Your task to perform on an android device: Open calendar and show me the second week of next month Image 0: 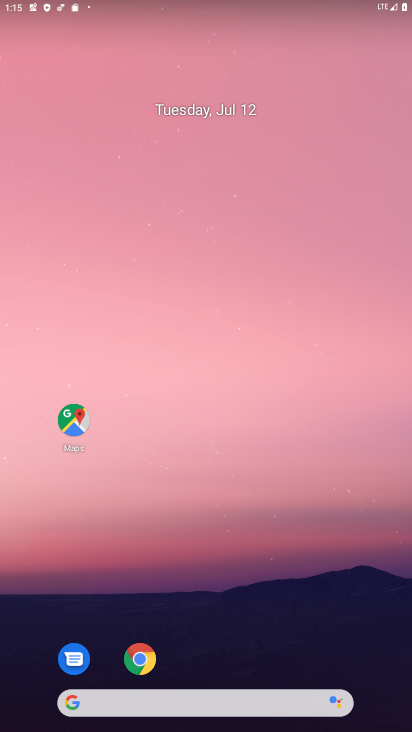
Step 0: drag from (211, 718) to (201, 223)
Your task to perform on an android device: Open calendar and show me the second week of next month Image 1: 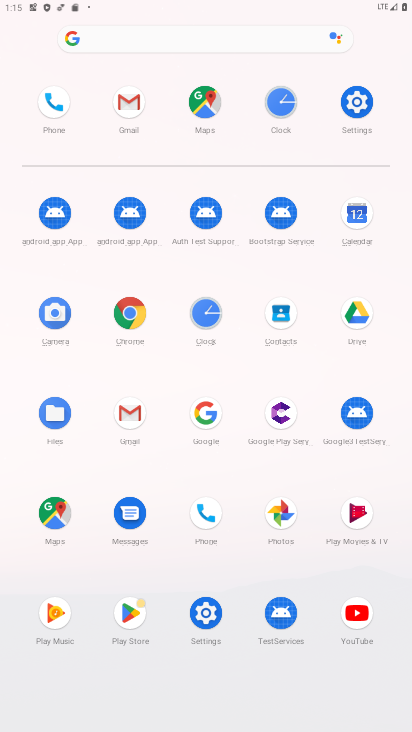
Step 1: click (356, 215)
Your task to perform on an android device: Open calendar and show me the second week of next month Image 2: 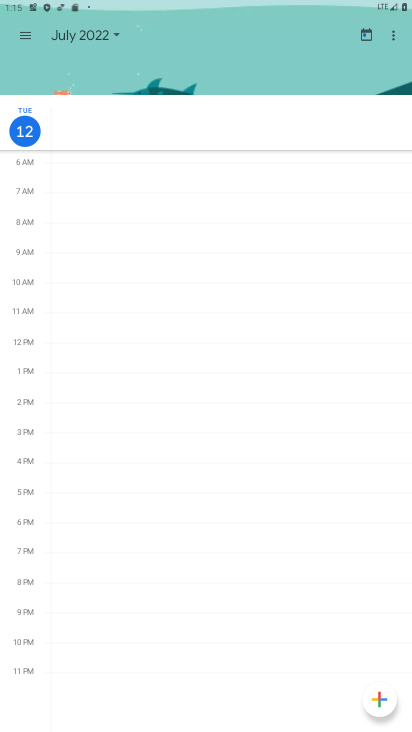
Step 2: click (117, 33)
Your task to perform on an android device: Open calendar and show me the second week of next month Image 3: 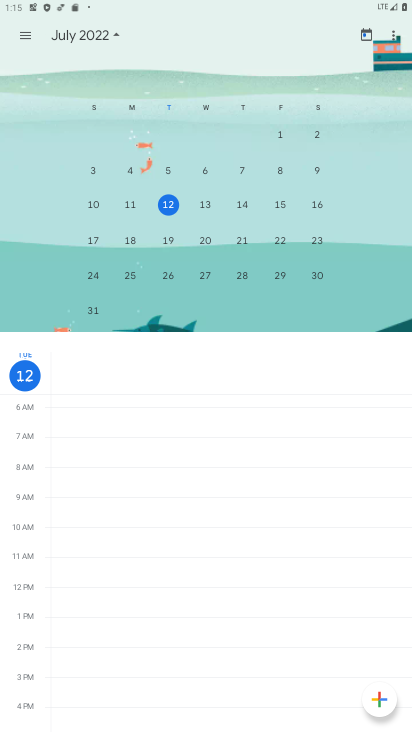
Step 3: drag from (305, 227) to (98, 227)
Your task to perform on an android device: Open calendar and show me the second week of next month Image 4: 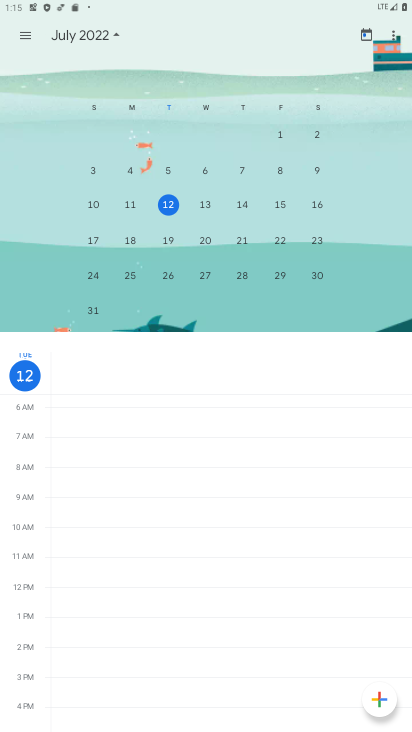
Step 4: drag from (328, 239) to (14, 218)
Your task to perform on an android device: Open calendar and show me the second week of next month Image 5: 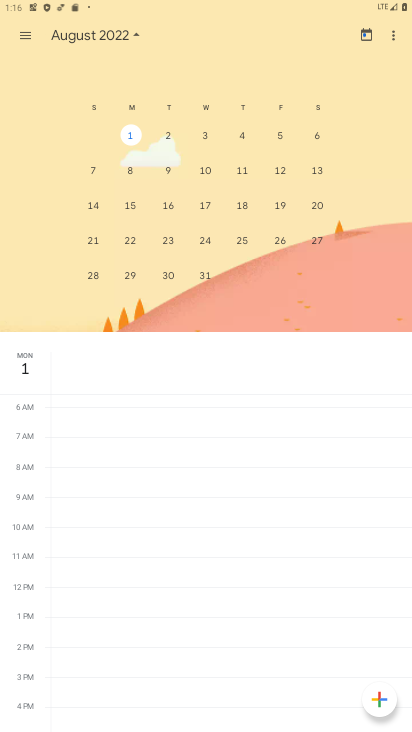
Step 5: click (128, 168)
Your task to perform on an android device: Open calendar and show me the second week of next month Image 6: 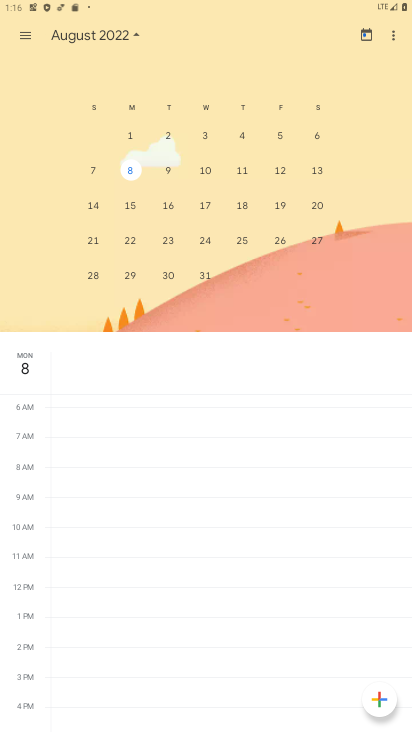
Step 6: click (128, 167)
Your task to perform on an android device: Open calendar and show me the second week of next month Image 7: 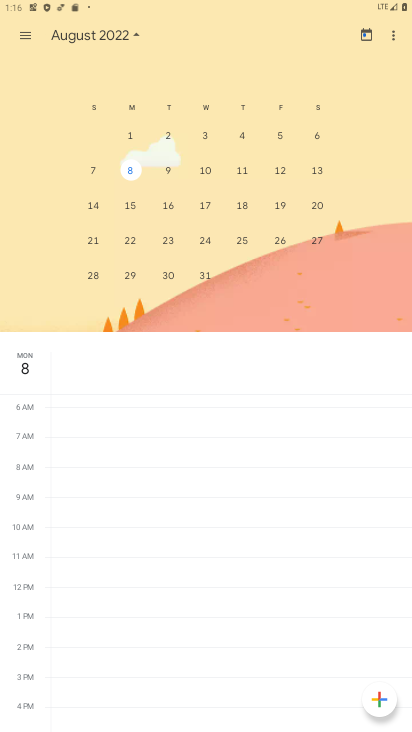
Step 7: click (129, 170)
Your task to perform on an android device: Open calendar and show me the second week of next month Image 8: 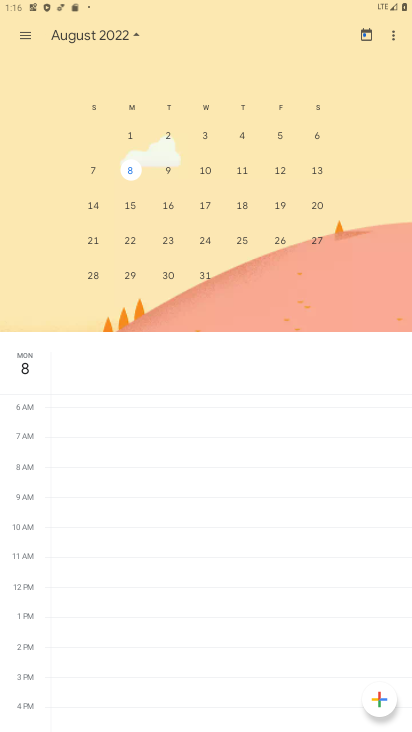
Step 8: click (20, 36)
Your task to perform on an android device: Open calendar and show me the second week of next month Image 9: 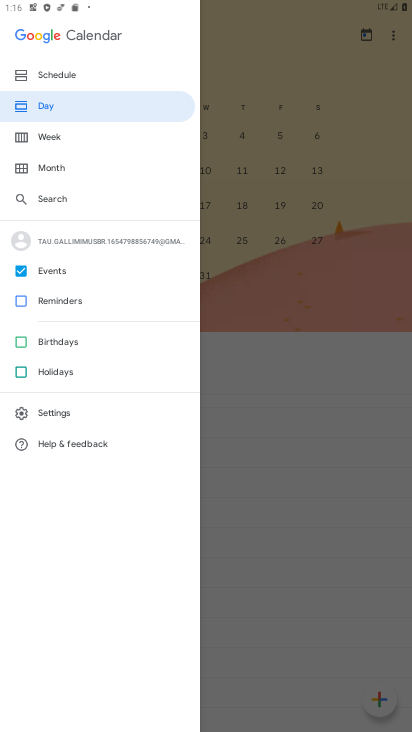
Step 9: click (45, 136)
Your task to perform on an android device: Open calendar and show me the second week of next month Image 10: 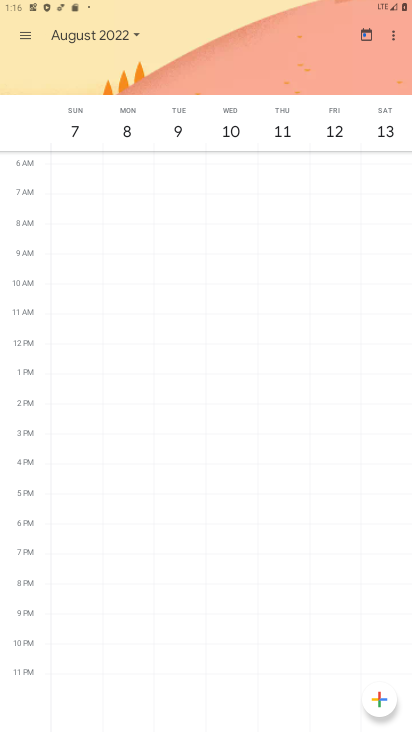
Step 10: task complete